Your task to perform on an android device: Open Google Maps and go to "Timeline" Image 0: 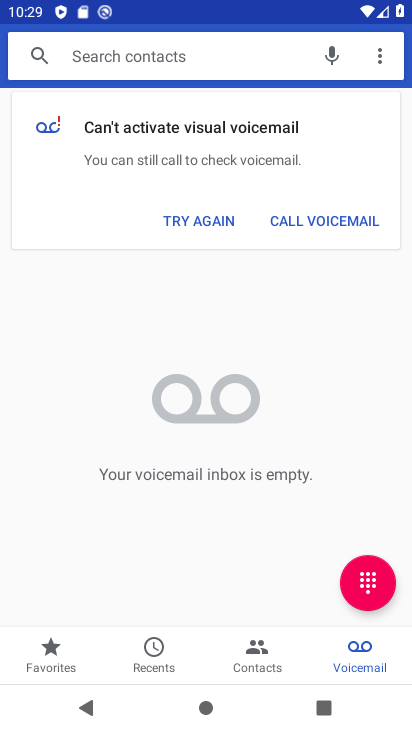
Step 0: press back button
Your task to perform on an android device: Open Google Maps and go to "Timeline" Image 1: 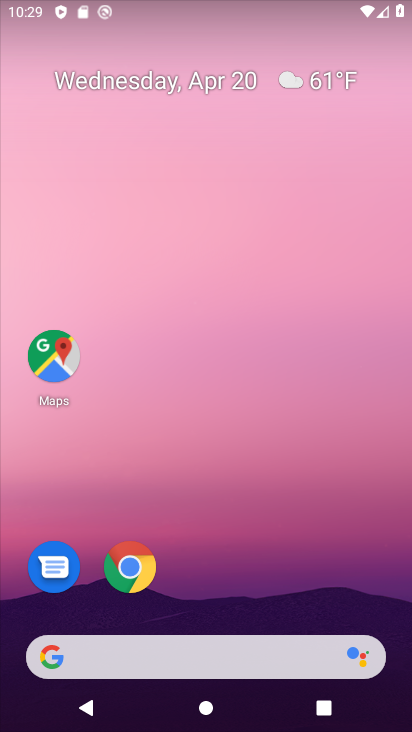
Step 1: click (56, 357)
Your task to perform on an android device: Open Google Maps and go to "Timeline" Image 2: 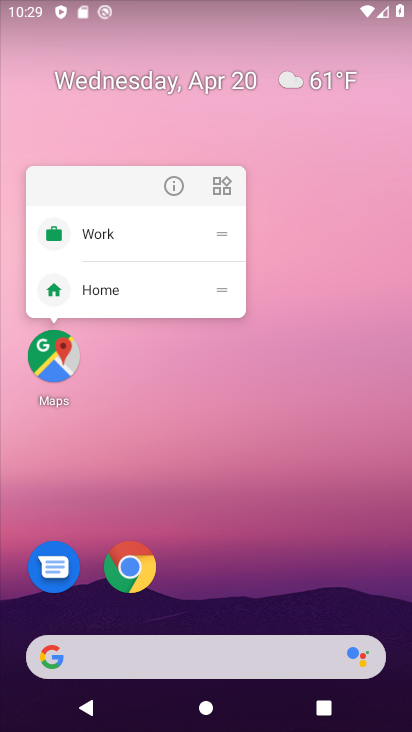
Step 2: click (55, 357)
Your task to perform on an android device: Open Google Maps and go to "Timeline" Image 3: 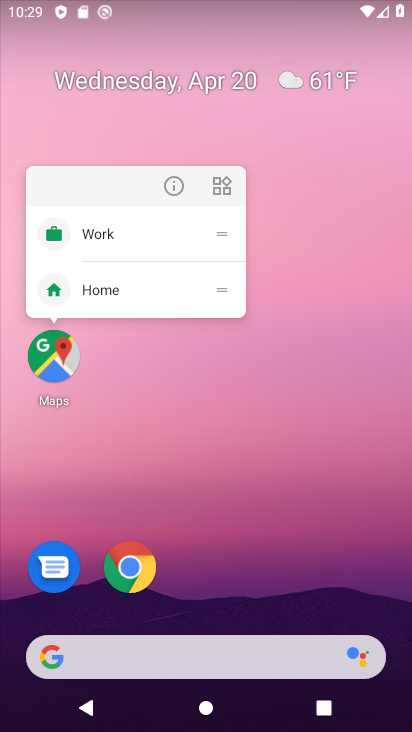
Step 3: click (56, 362)
Your task to perform on an android device: Open Google Maps and go to "Timeline" Image 4: 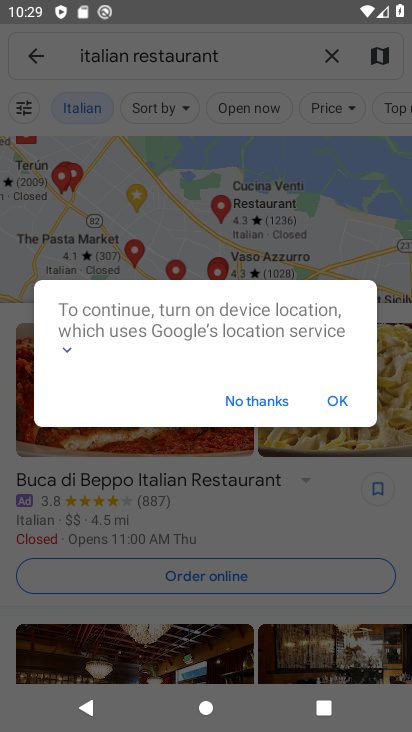
Step 4: click (258, 394)
Your task to perform on an android device: Open Google Maps and go to "Timeline" Image 5: 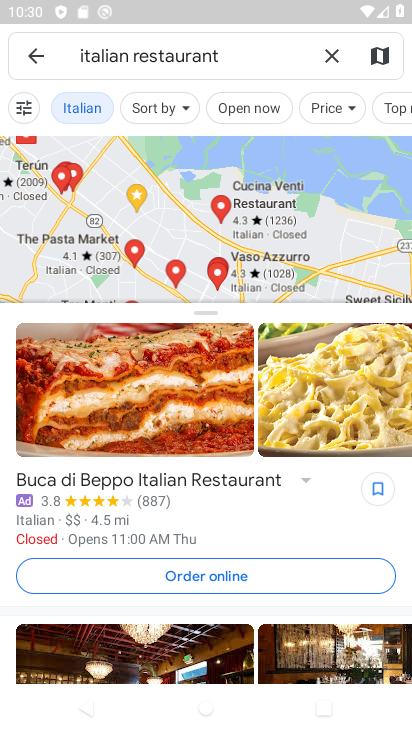
Step 5: click (40, 48)
Your task to perform on an android device: Open Google Maps and go to "Timeline" Image 6: 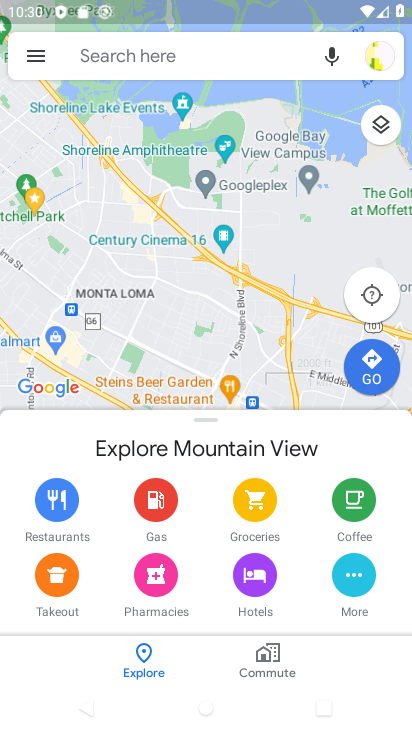
Step 6: click (33, 53)
Your task to perform on an android device: Open Google Maps and go to "Timeline" Image 7: 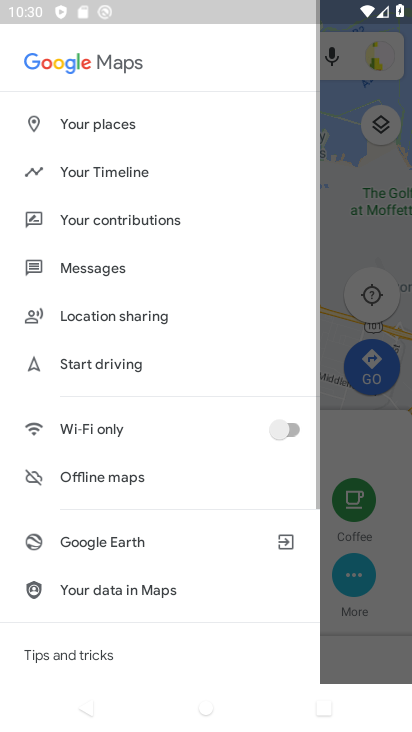
Step 7: click (119, 164)
Your task to perform on an android device: Open Google Maps and go to "Timeline" Image 8: 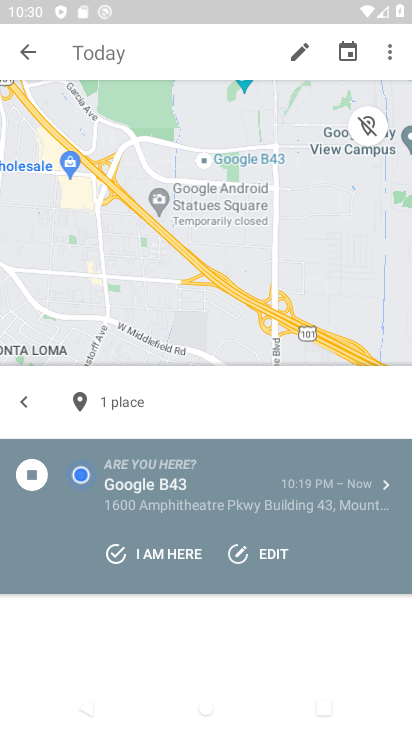
Step 8: task complete